Your task to perform on an android device: What's on my calendar today? Image 0: 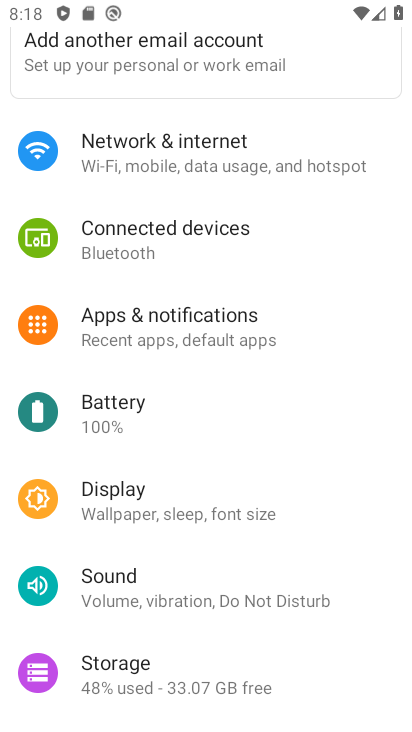
Step 0: press home button
Your task to perform on an android device: What's on my calendar today? Image 1: 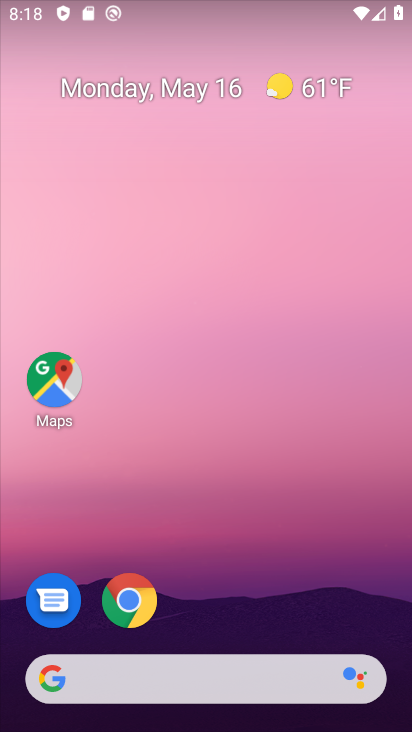
Step 1: drag from (230, 608) to (314, 24)
Your task to perform on an android device: What's on my calendar today? Image 2: 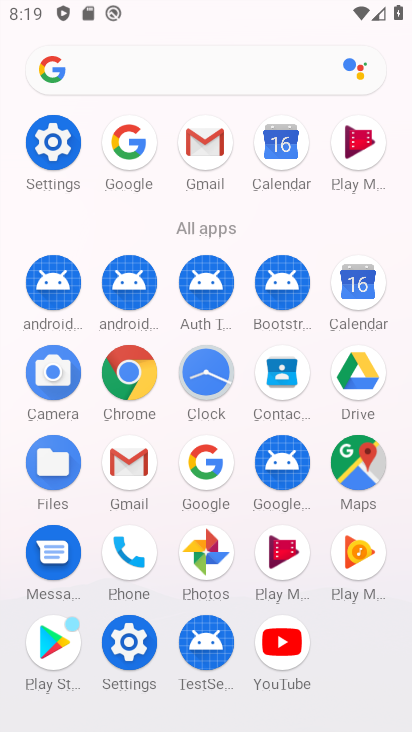
Step 2: click (349, 279)
Your task to perform on an android device: What's on my calendar today? Image 3: 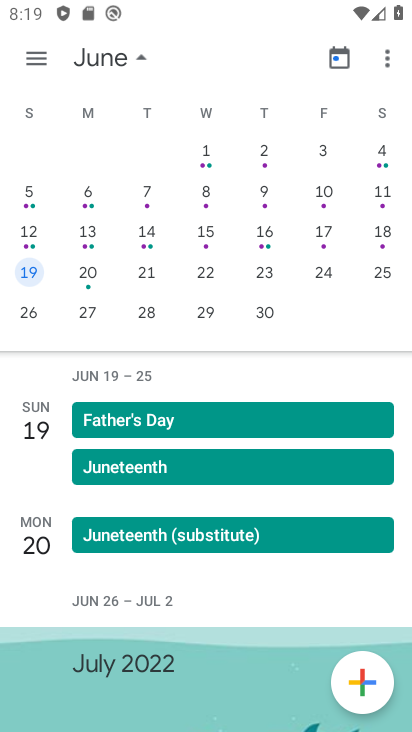
Step 3: drag from (57, 193) to (407, 190)
Your task to perform on an android device: What's on my calendar today? Image 4: 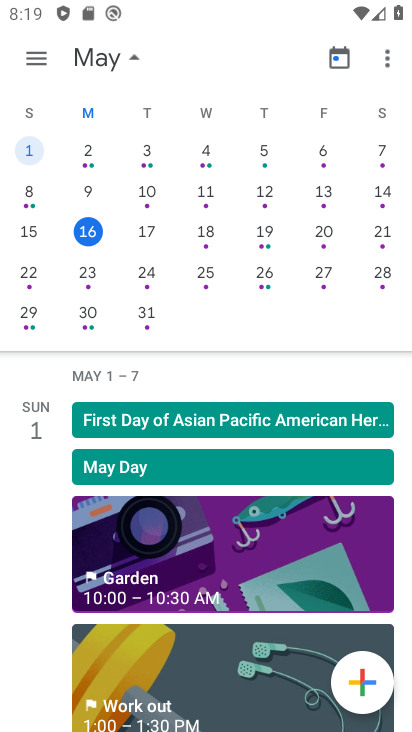
Step 4: click (87, 231)
Your task to perform on an android device: What's on my calendar today? Image 5: 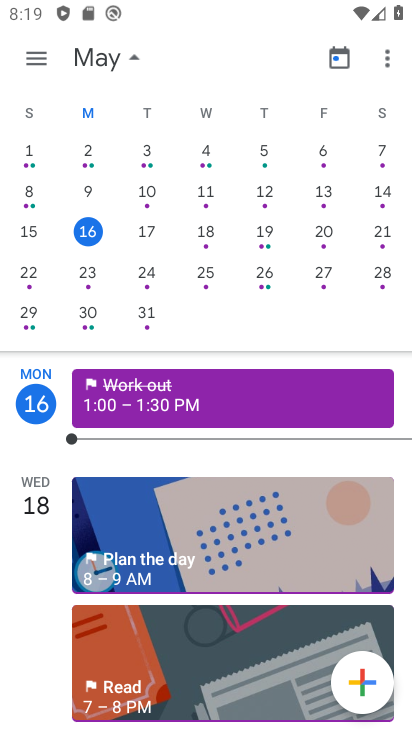
Step 5: task complete